Your task to perform on an android device: check battery use Image 0: 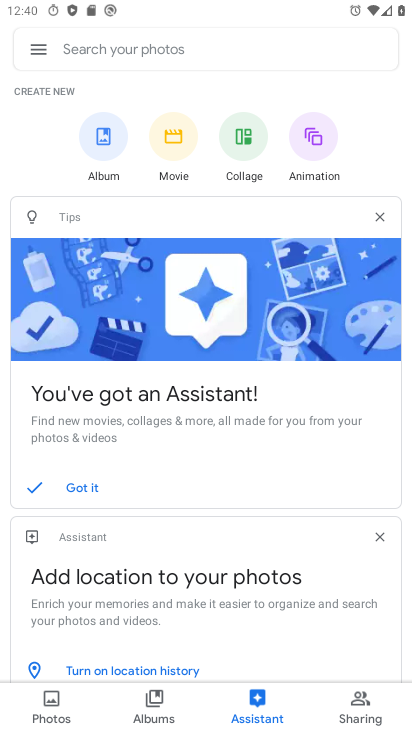
Step 0: press home button
Your task to perform on an android device: check battery use Image 1: 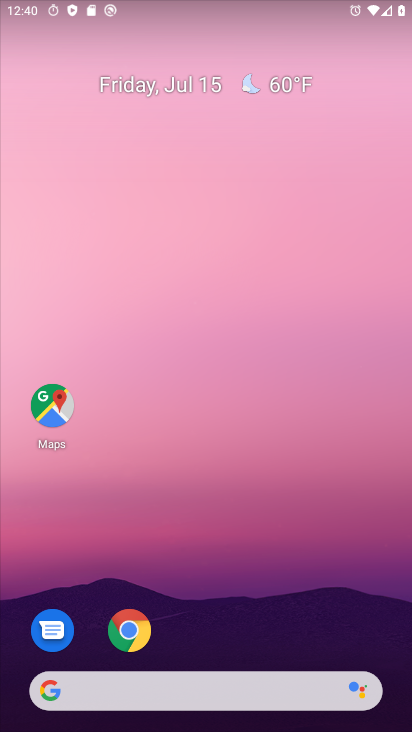
Step 1: drag from (200, 559) to (235, 139)
Your task to perform on an android device: check battery use Image 2: 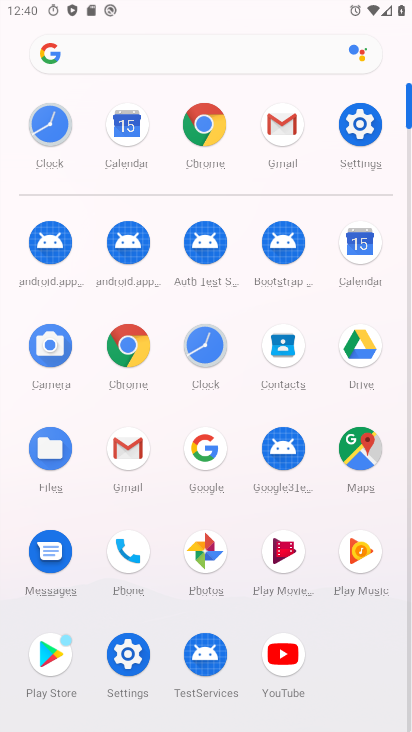
Step 2: click (354, 117)
Your task to perform on an android device: check battery use Image 3: 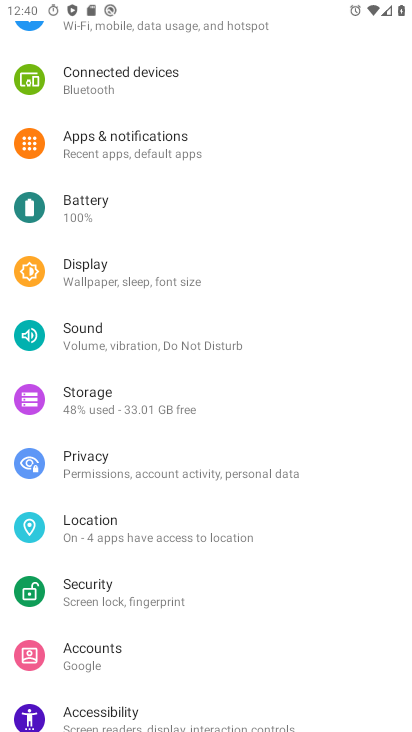
Step 3: click (69, 208)
Your task to perform on an android device: check battery use Image 4: 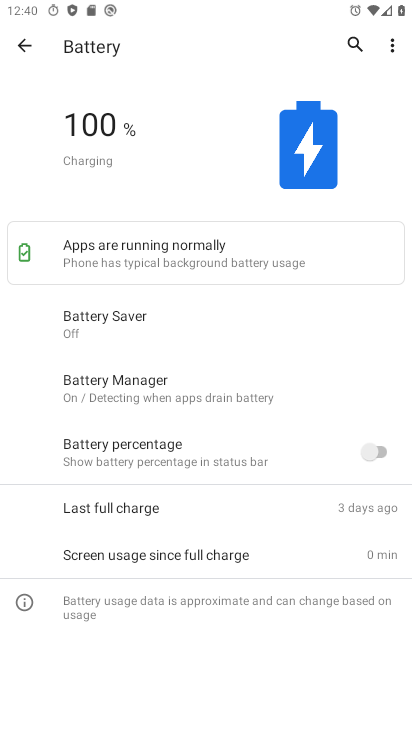
Step 4: task complete